Your task to perform on an android device: find which apps use the phone's location Image 0: 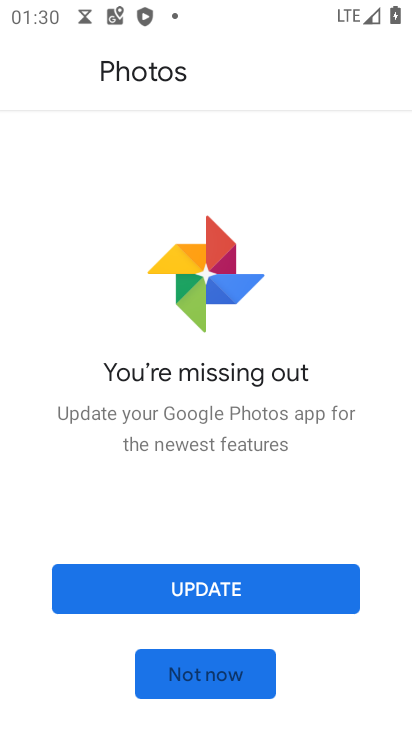
Step 0: click (220, 673)
Your task to perform on an android device: find which apps use the phone's location Image 1: 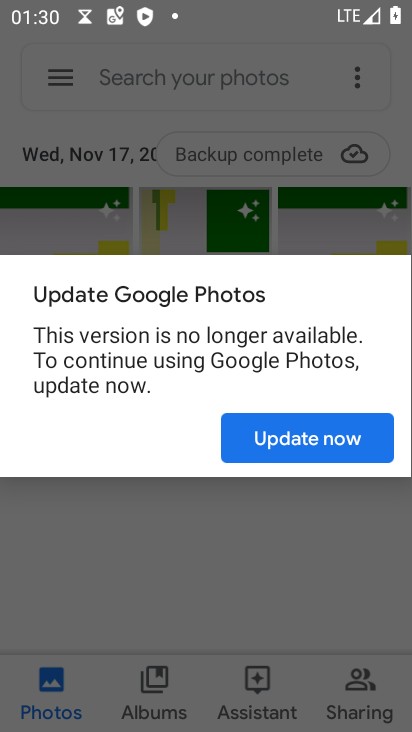
Step 1: press home button
Your task to perform on an android device: find which apps use the phone's location Image 2: 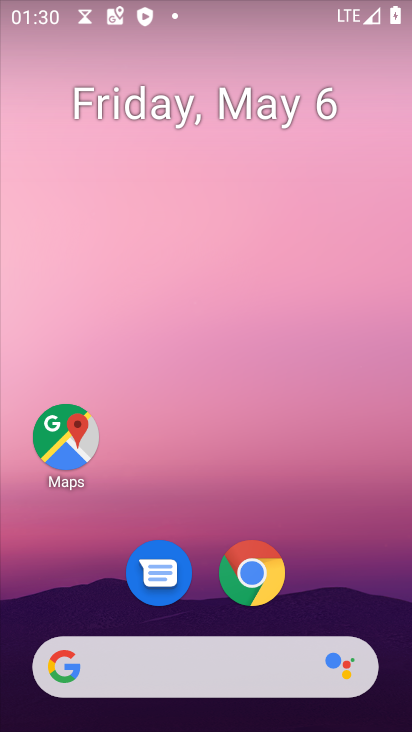
Step 2: drag from (302, 589) to (347, 271)
Your task to perform on an android device: find which apps use the phone's location Image 3: 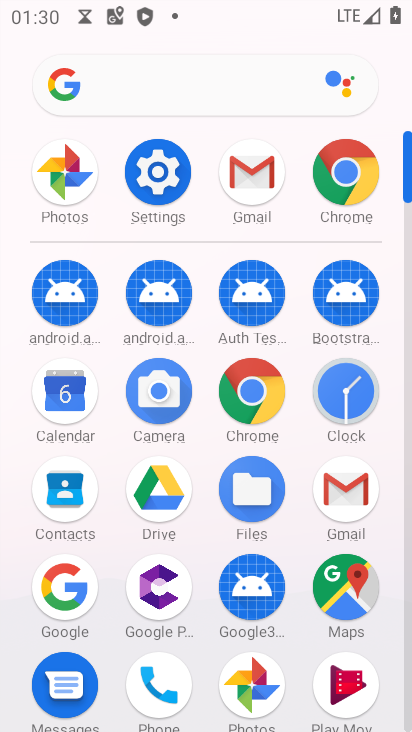
Step 3: click (150, 164)
Your task to perform on an android device: find which apps use the phone's location Image 4: 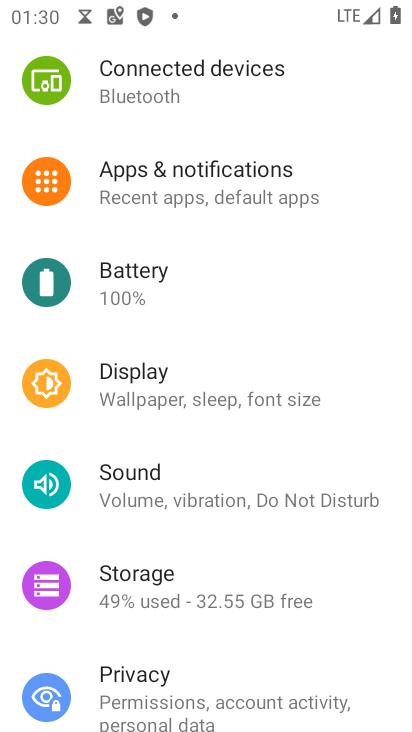
Step 4: drag from (200, 587) to (244, 241)
Your task to perform on an android device: find which apps use the phone's location Image 5: 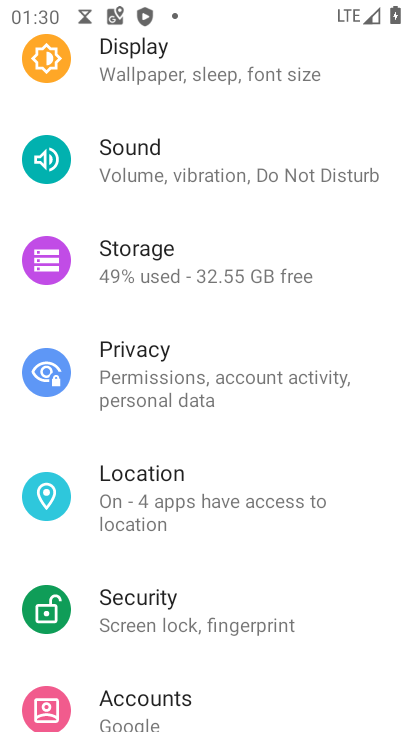
Step 5: click (209, 501)
Your task to perform on an android device: find which apps use the phone's location Image 6: 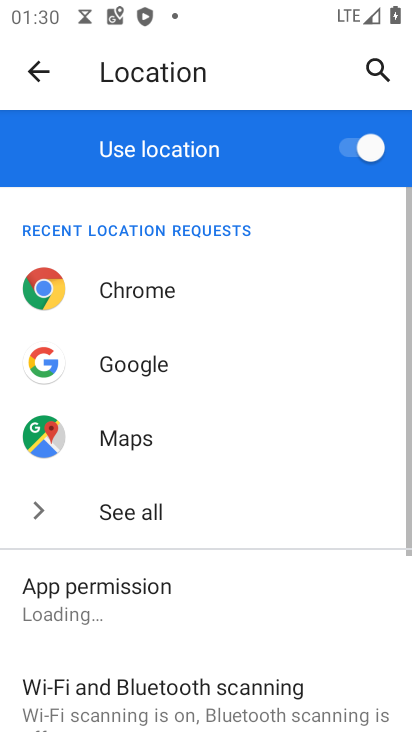
Step 6: task complete